Your task to perform on an android device: open a bookmark in the chrome app Image 0: 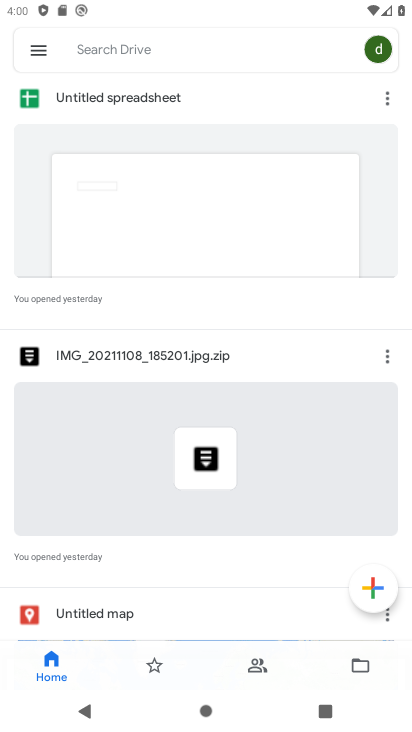
Step 0: press home button
Your task to perform on an android device: open a bookmark in the chrome app Image 1: 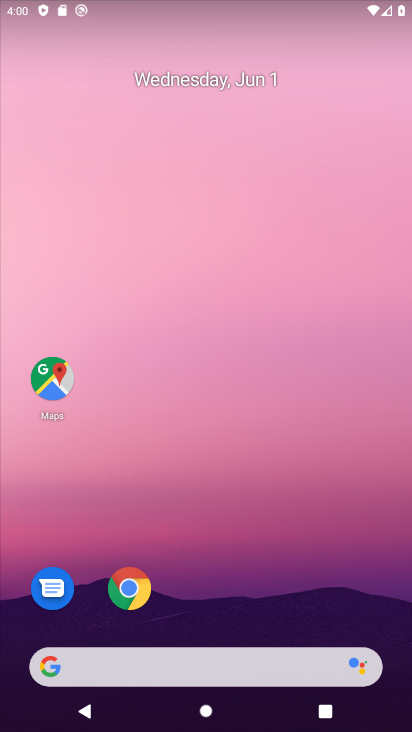
Step 1: click (119, 581)
Your task to perform on an android device: open a bookmark in the chrome app Image 2: 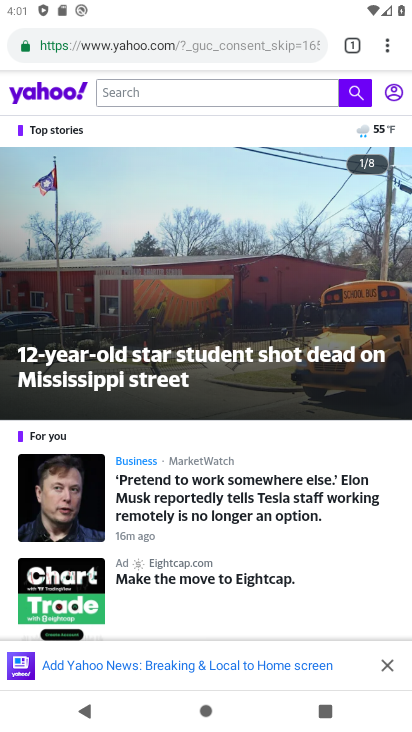
Step 2: click (393, 55)
Your task to perform on an android device: open a bookmark in the chrome app Image 3: 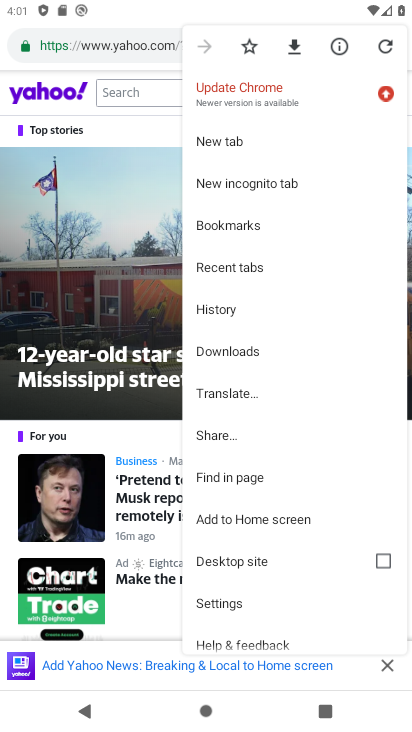
Step 3: click (259, 220)
Your task to perform on an android device: open a bookmark in the chrome app Image 4: 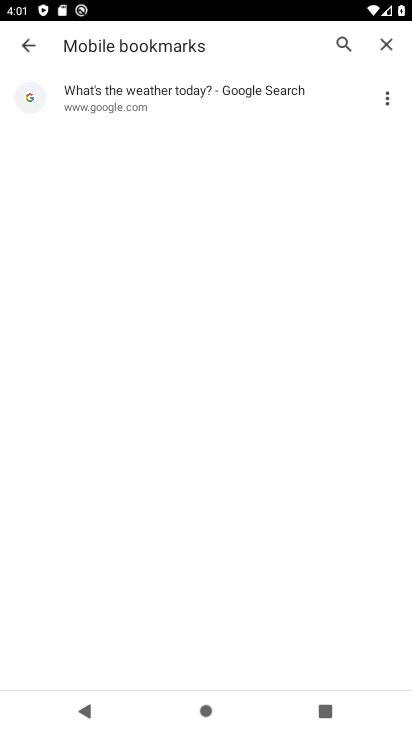
Step 4: click (173, 110)
Your task to perform on an android device: open a bookmark in the chrome app Image 5: 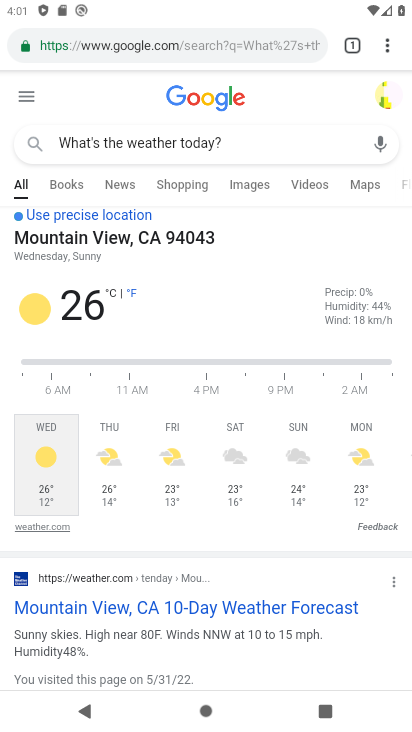
Step 5: task complete